Your task to perform on an android device: Go to Google Image 0: 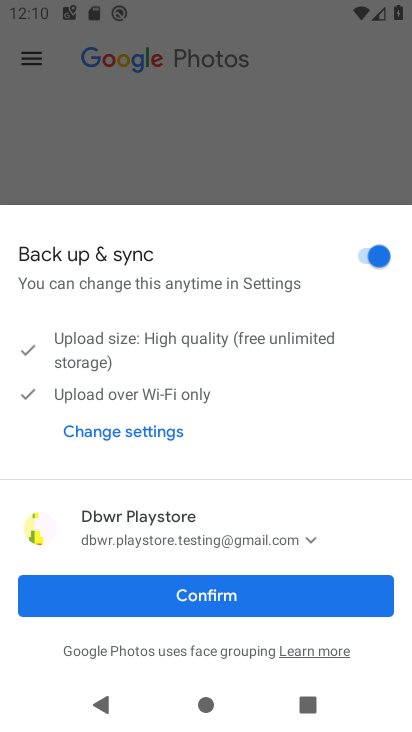
Step 0: press home button
Your task to perform on an android device: Go to Google Image 1: 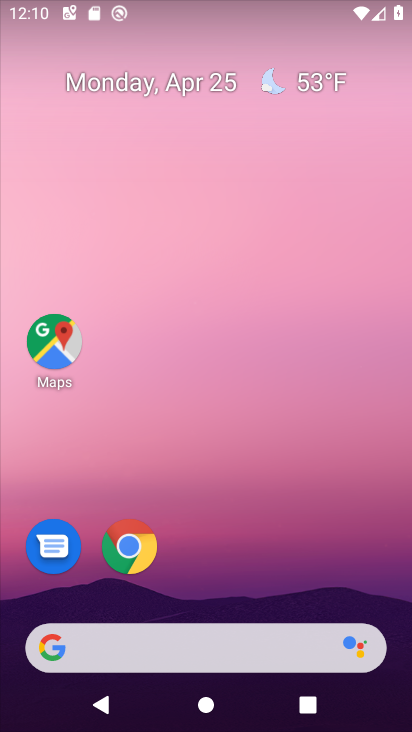
Step 1: drag from (307, 552) to (294, 9)
Your task to perform on an android device: Go to Google Image 2: 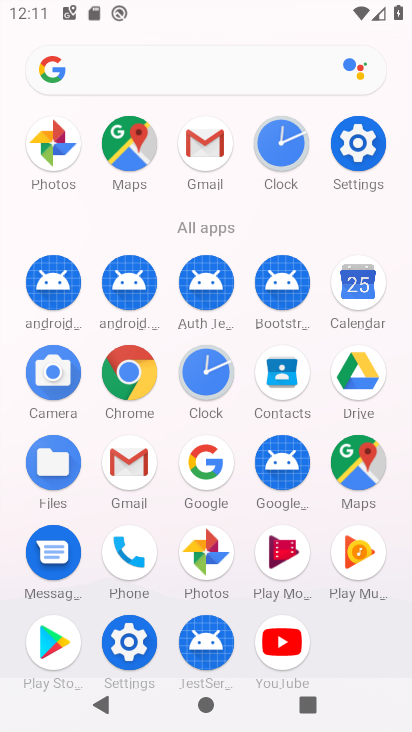
Step 2: click (196, 467)
Your task to perform on an android device: Go to Google Image 3: 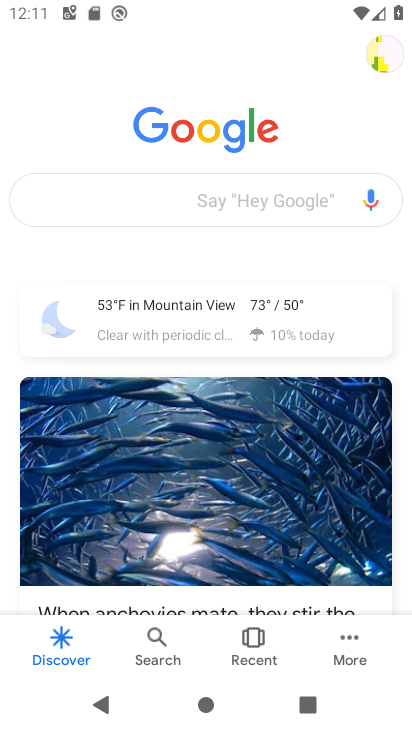
Step 3: task complete